Your task to perform on an android device: change the clock style Image 0: 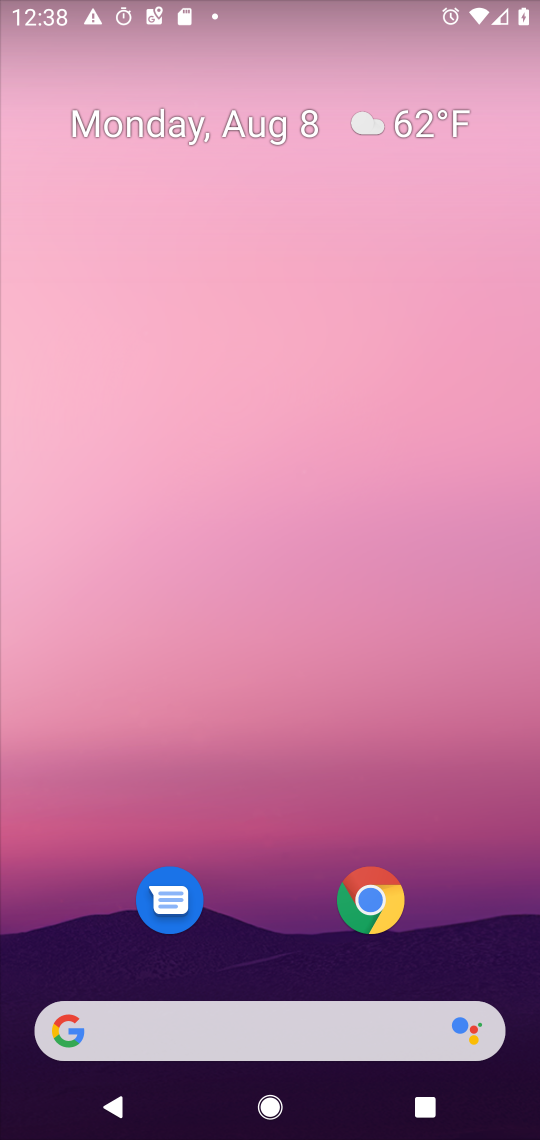
Step 0: press home button
Your task to perform on an android device: change the clock style Image 1: 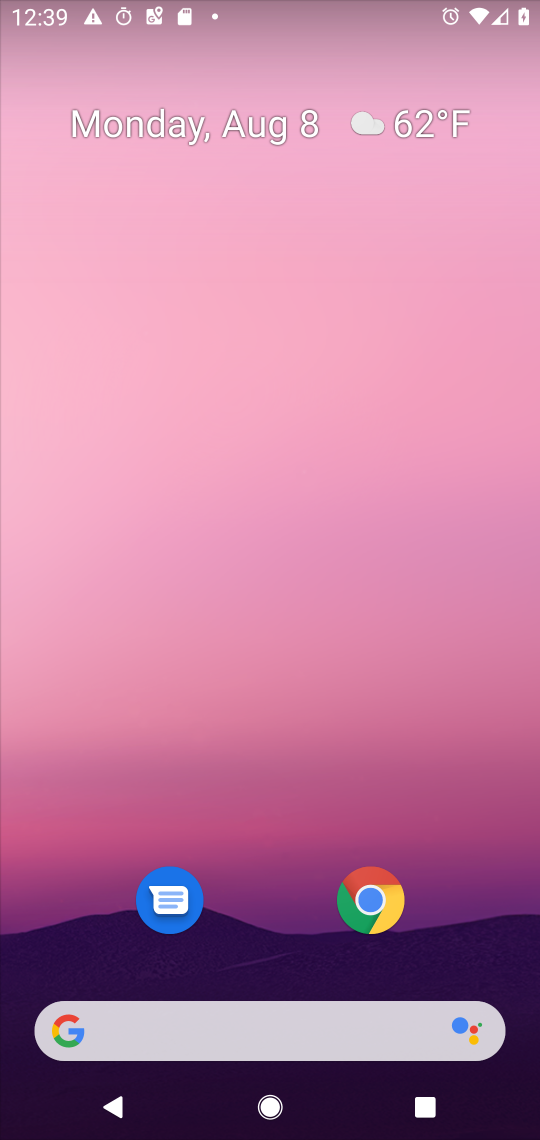
Step 1: drag from (276, 965) to (312, 125)
Your task to perform on an android device: change the clock style Image 2: 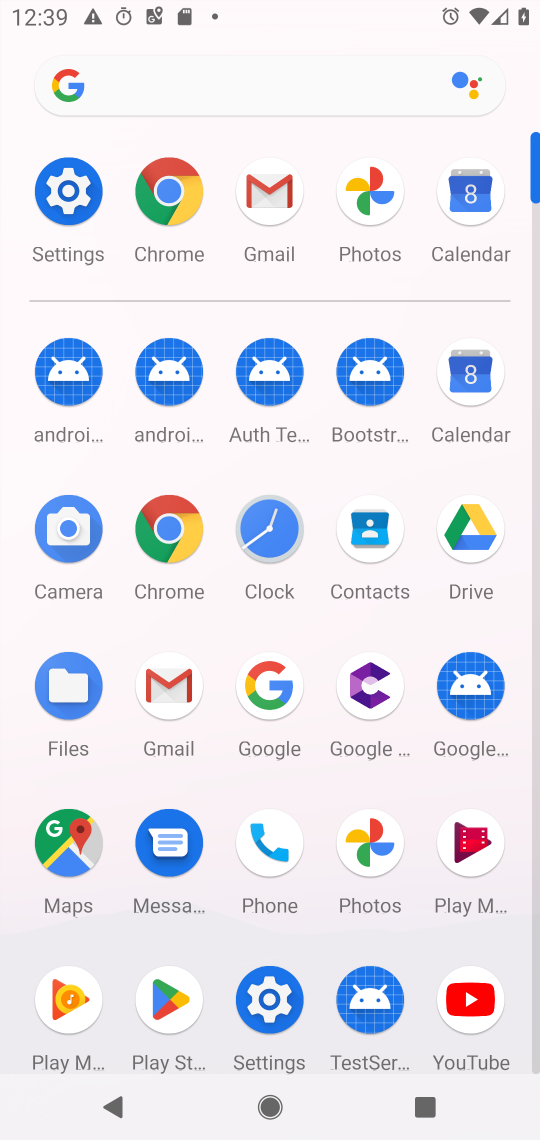
Step 2: click (266, 515)
Your task to perform on an android device: change the clock style Image 3: 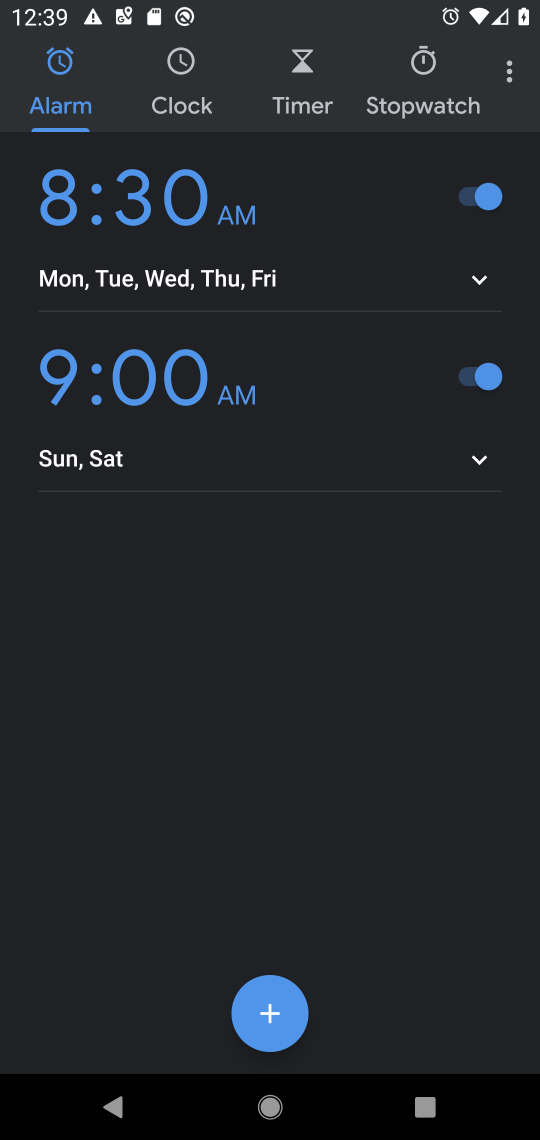
Step 3: click (509, 73)
Your task to perform on an android device: change the clock style Image 4: 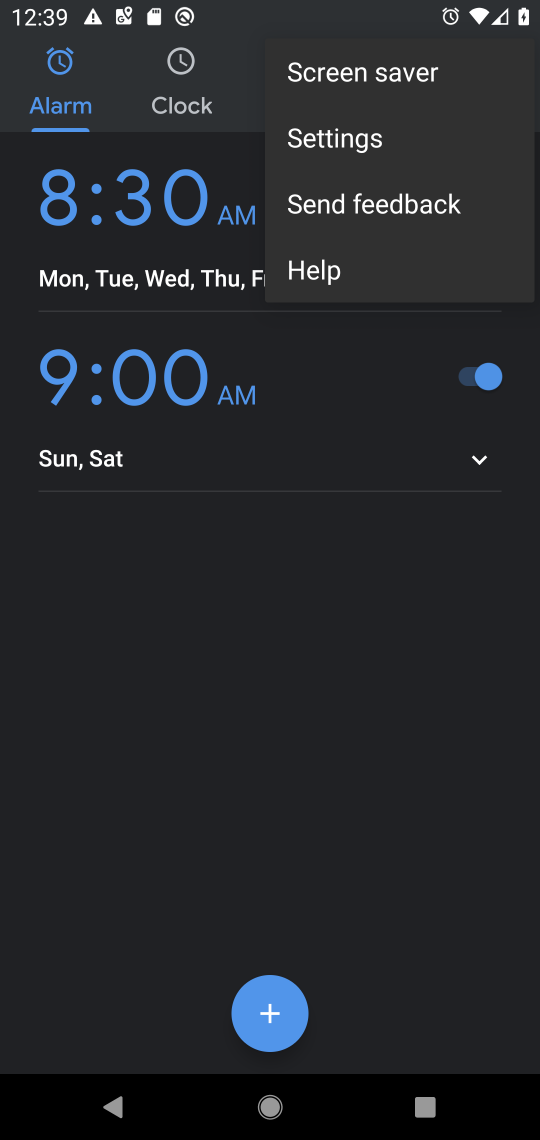
Step 4: click (387, 157)
Your task to perform on an android device: change the clock style Image 5: 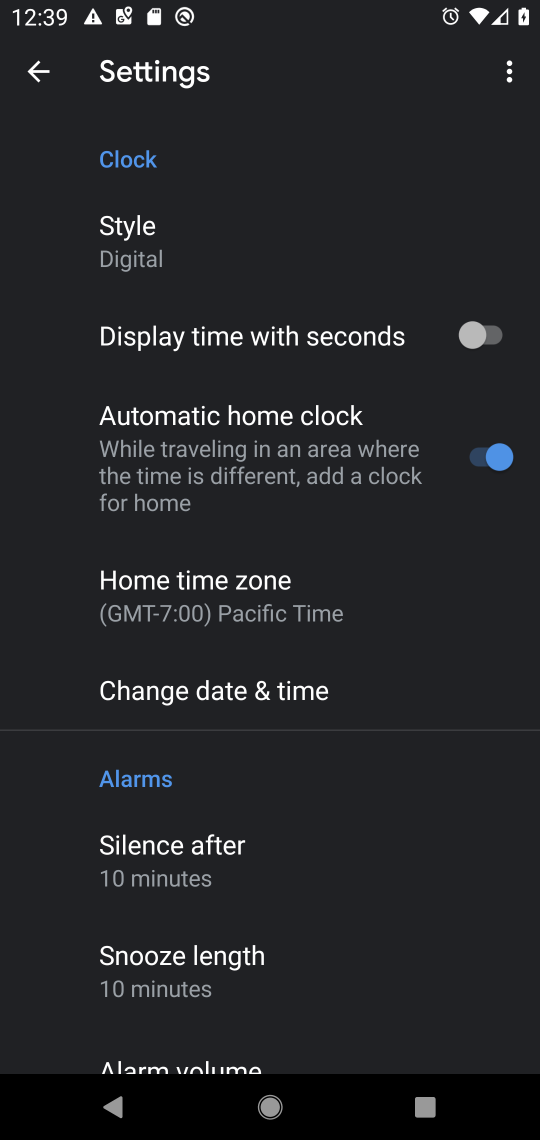
Step 5: click (198, 241)
Your task to perform on an android device: change the clock style Image 6: 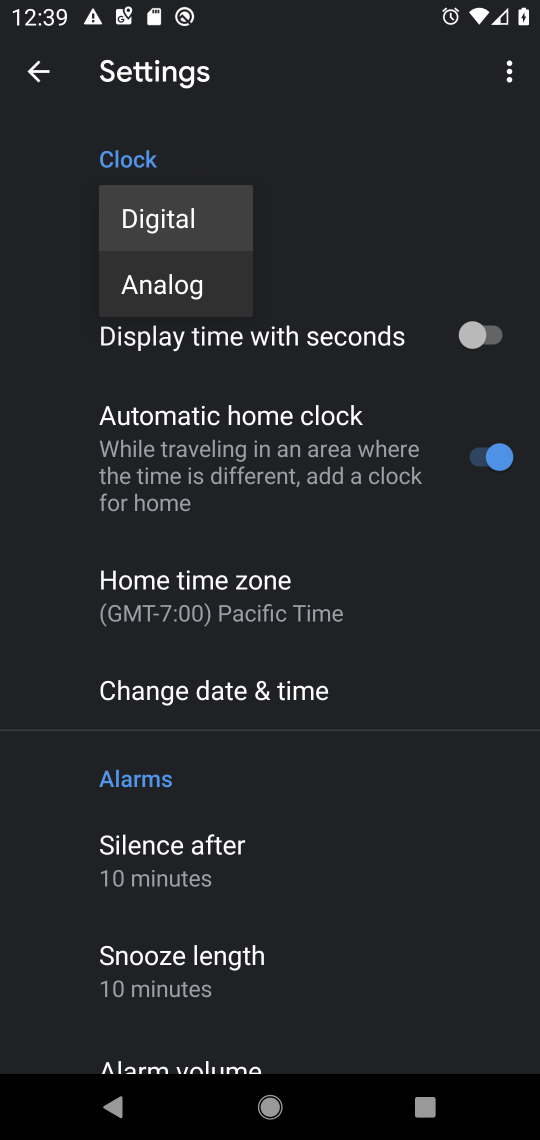
Step 6: click (190, 302)
Your task to perform on an android device: change the clock style Image 7: 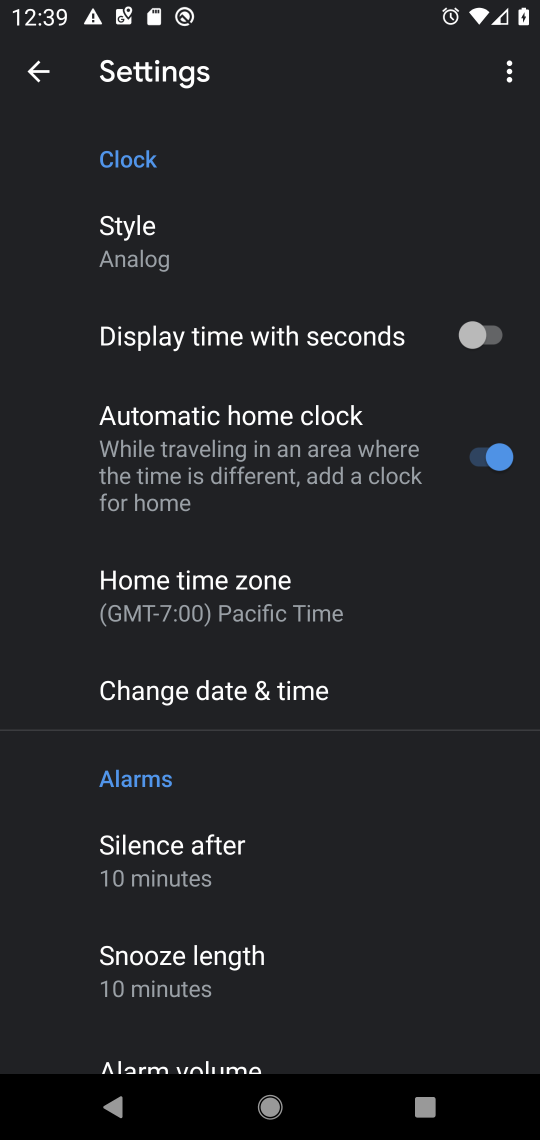
Step 7: task complete